Your task to perform on an android device: Go to calendar. Show me events next week Image 0: 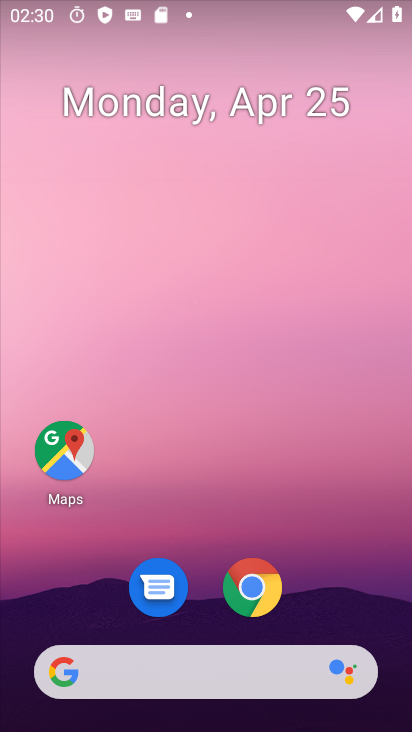
Step 0: drag from (320, 281) to (315, 137)
Your task to perform on an android device: Go to calendar. Show me events next week Image 1: 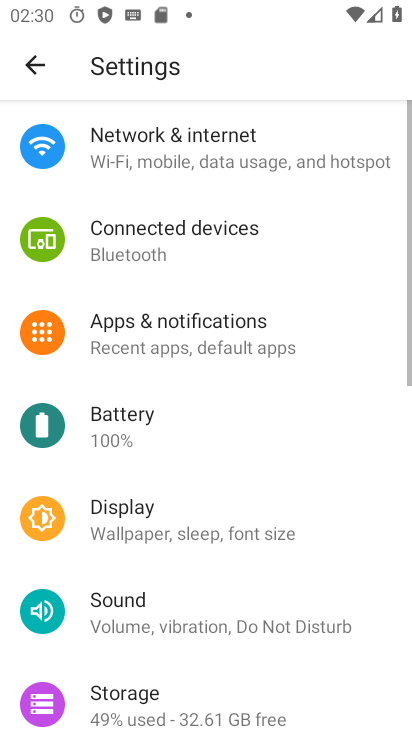
Step 1: press home button
Your task to perform on an android device: Go to calendar. Show me events next week Image 2: 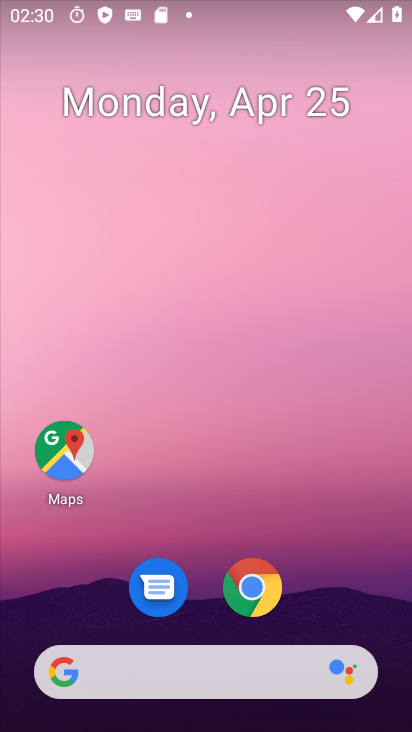
Step 2: drag from (338, 569) to (280, 55)
Your task to perform on an android device: Go to calendar. Show me events next week Image 3: 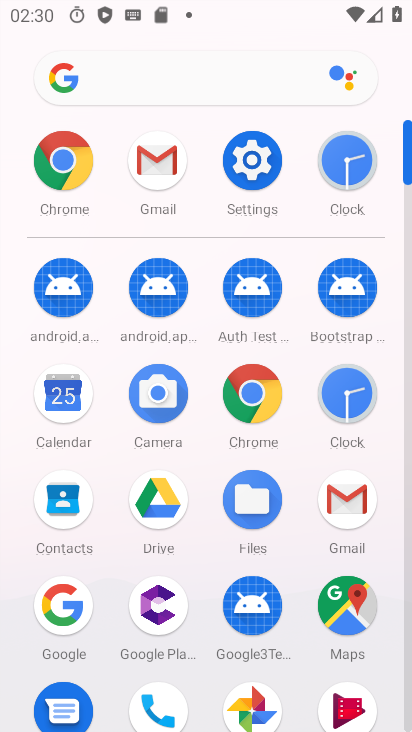
Step 3: click (67, 394)
Your task to perform on an android device: Go to calendar. Show me events next week Image 4: 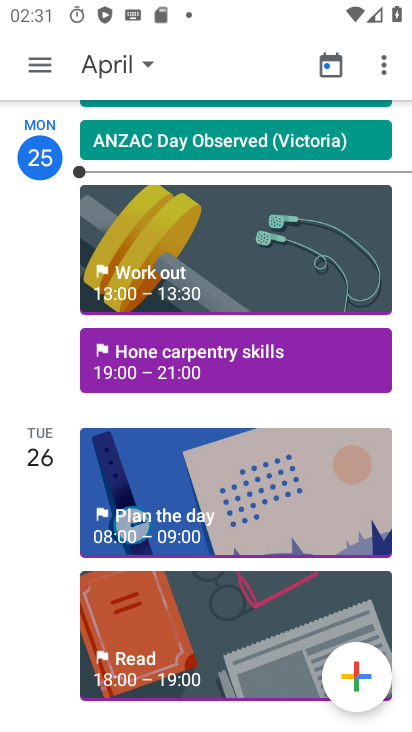
Step 4: click (112, 63)
Your task to perform on an android device: Go to calendar. Show me events next week Image 5: 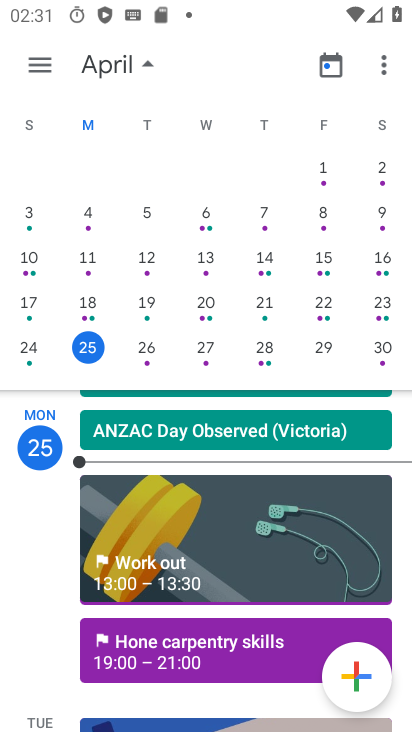
Step 5: drag from (337, 285) to (18, 244)
Your task to perform on an android device: Go to calendar. Show me events next week Image 6: 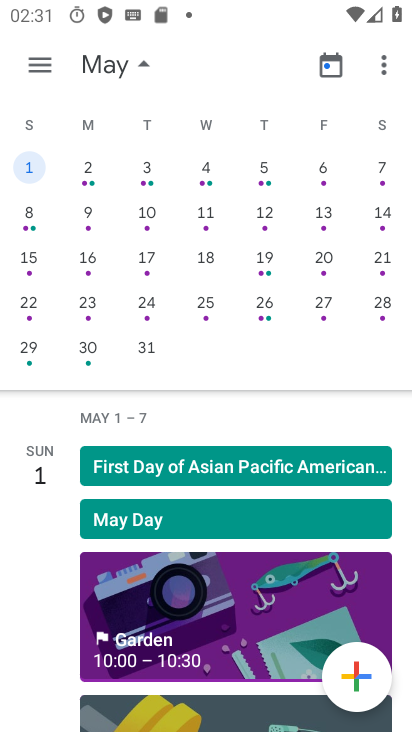
Step 6: click (142, 177)
Your task to perform on an android device: Go to calendar. Show me events next week Image 7: 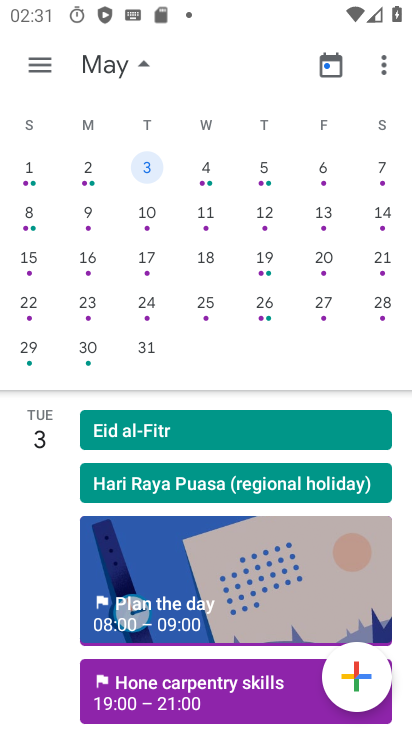
Step 7: task complete